Your task to perform on an android device: When is my next meeting? Image 0: 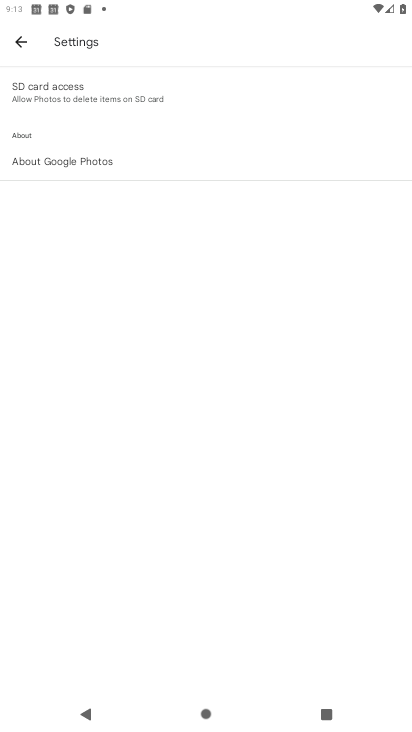
Step 0: press home button
Your task to perform on an android device: When is my next meeting? Image 1: 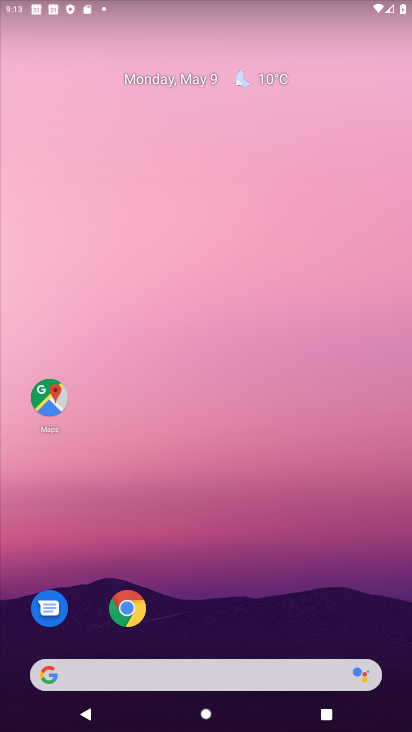
Step 1: drag from (302, 456) to (300, 117)
Your task to perform on an android device: When is my next meeting? Image 2: 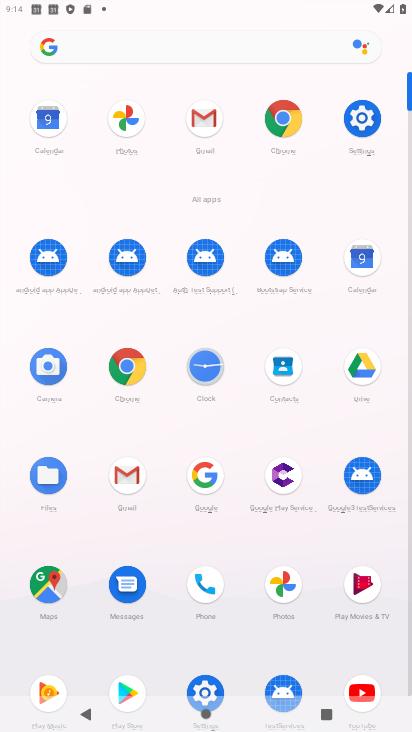
Step 2: click (366, 262)
Your task to perform on an android device: When is my next meeting? Image 3: 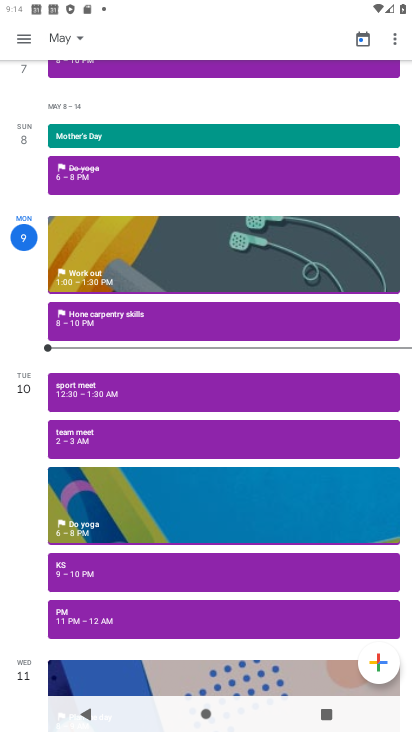
Step 3: click (78, 30)
Your task to perform on an android device: When is my next meeting? Image 4: 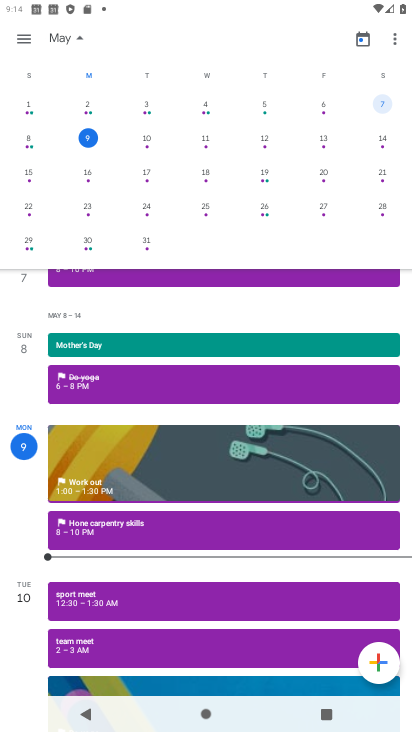
Step 4: click (144, 140)
Your task to perform on an android device: When is my next meeting? Image 5: 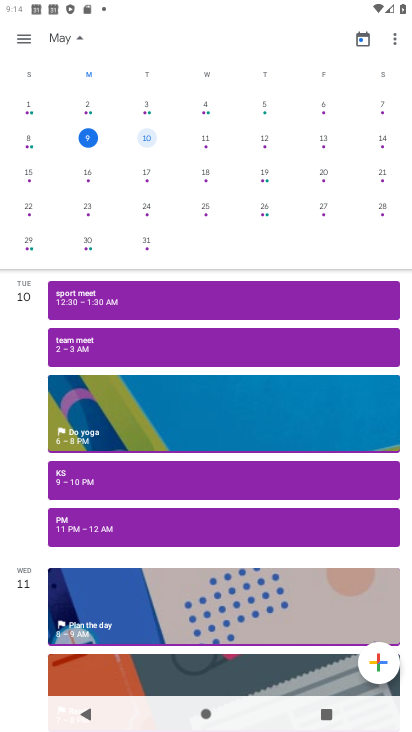
Step 5: task complete